Your task to perform on an android device: install app "Airtel Thanks" Image 0: 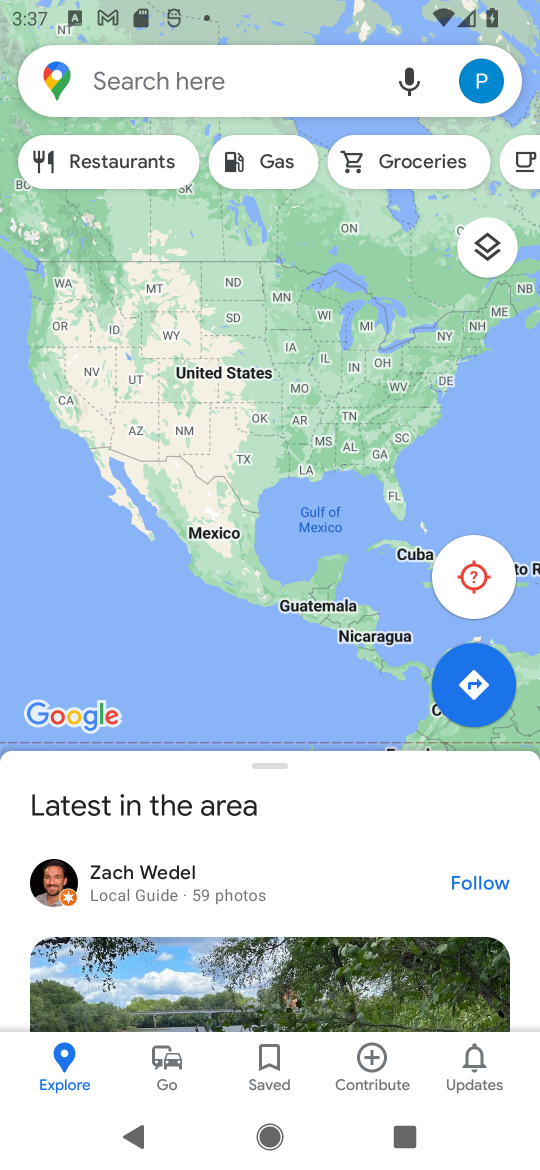
Step 0: press home button
Your task to perform on an android device: install app "Airtel Thanks" Image 1: 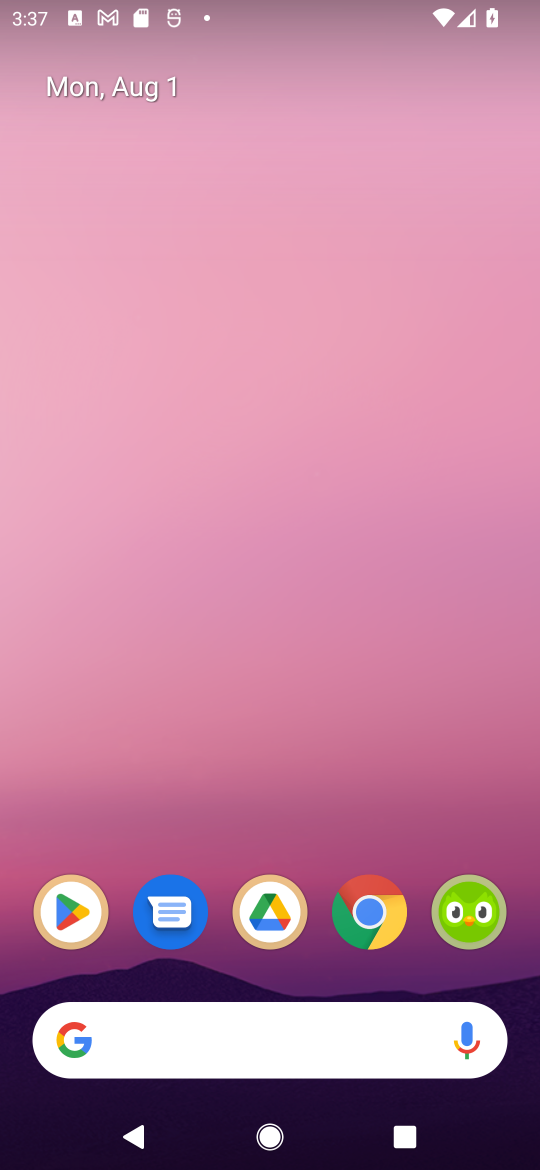
Step 1: click (66, 911)
Your task to perform on an android device: install app "Airtel Thanks" Image 2: 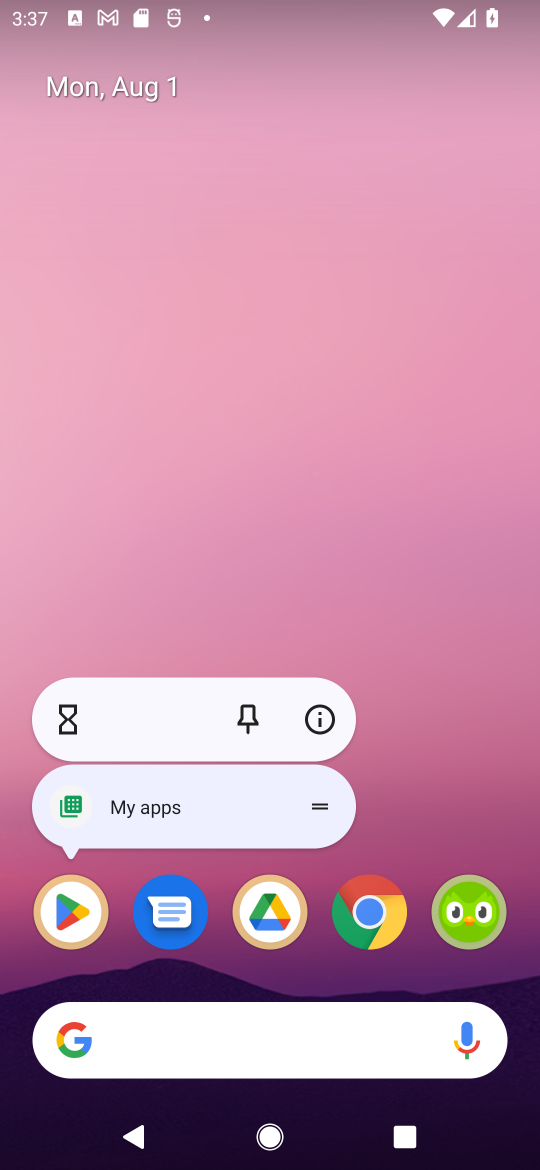
Step 2: click (72, 917)
Your task to perform on an android device: install app "Airtel Thanks" Image 3: 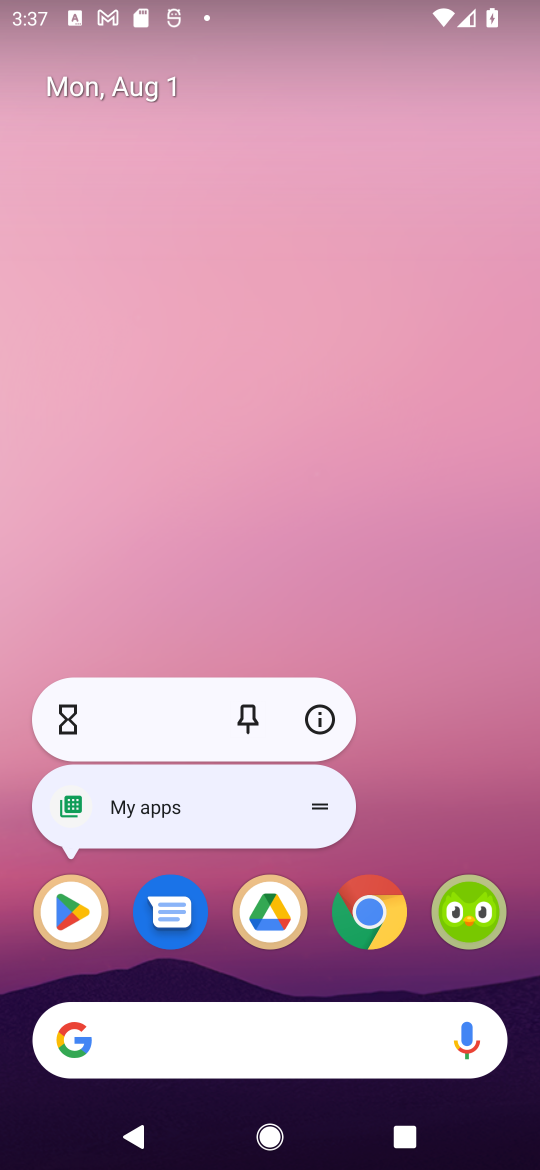
Step 3: click (72, 917)
Your task to perform on an android device: install app "Airtel Thanks" Image 4: 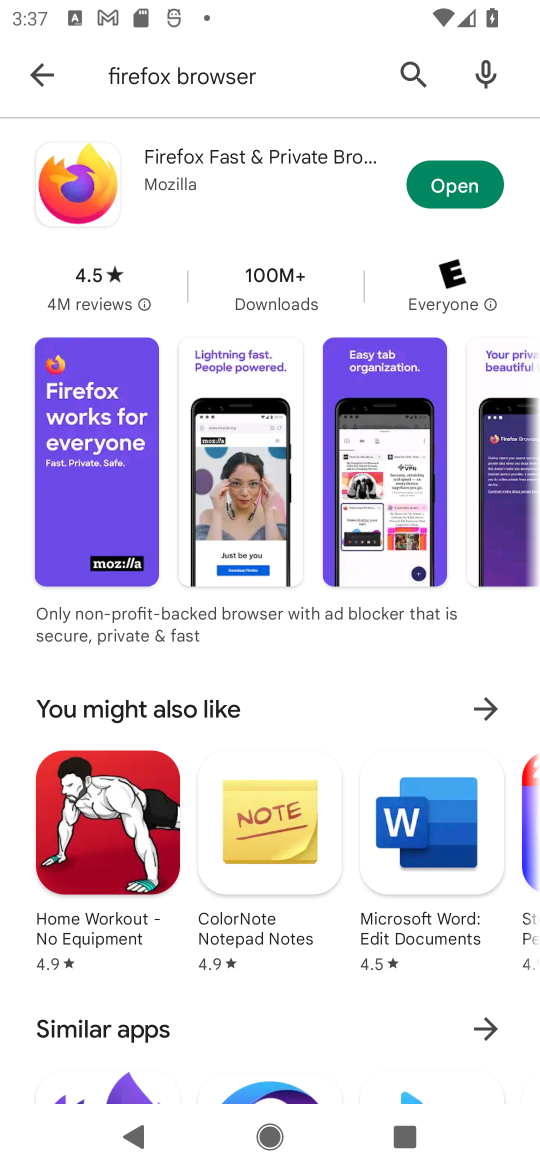
Step 4: click (423, 66)
Your task to perform on an android device: install app "Airtel Thanks" Image 5: 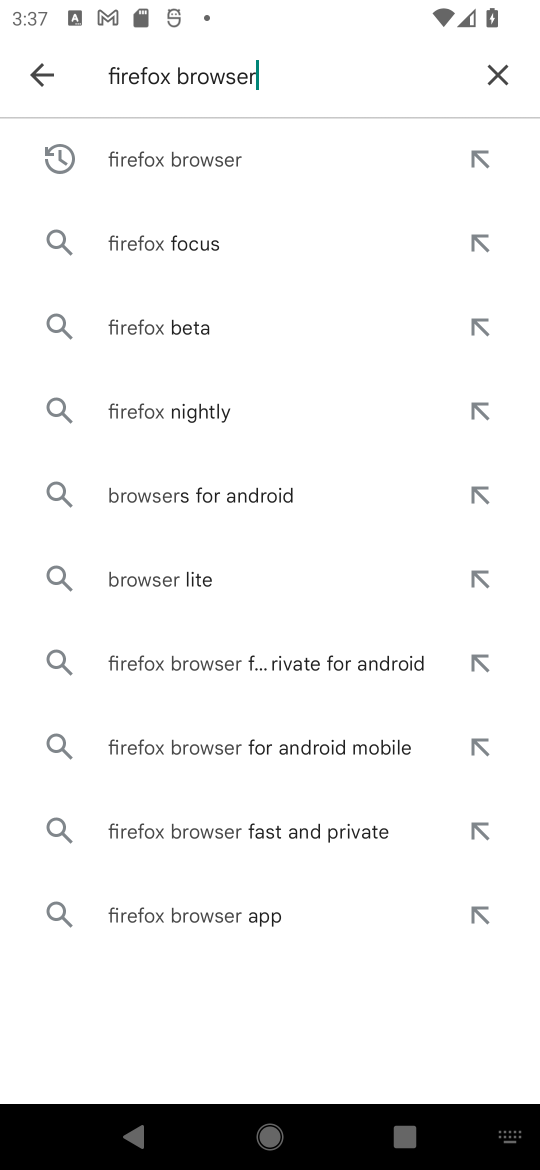
Step 5: click (501, 76)
Your task to perform on an android device: install app "Airtel Thanks" Image 6: 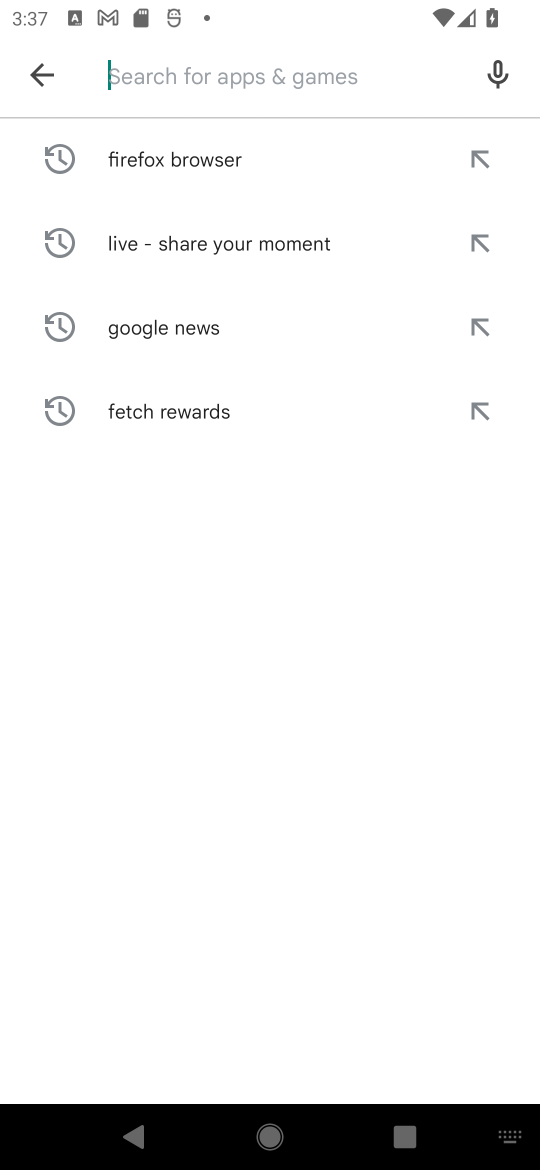
Step 6: click (142, 84)
Your task to perform on an android device: install app "Airtel Thanks" Image 7: 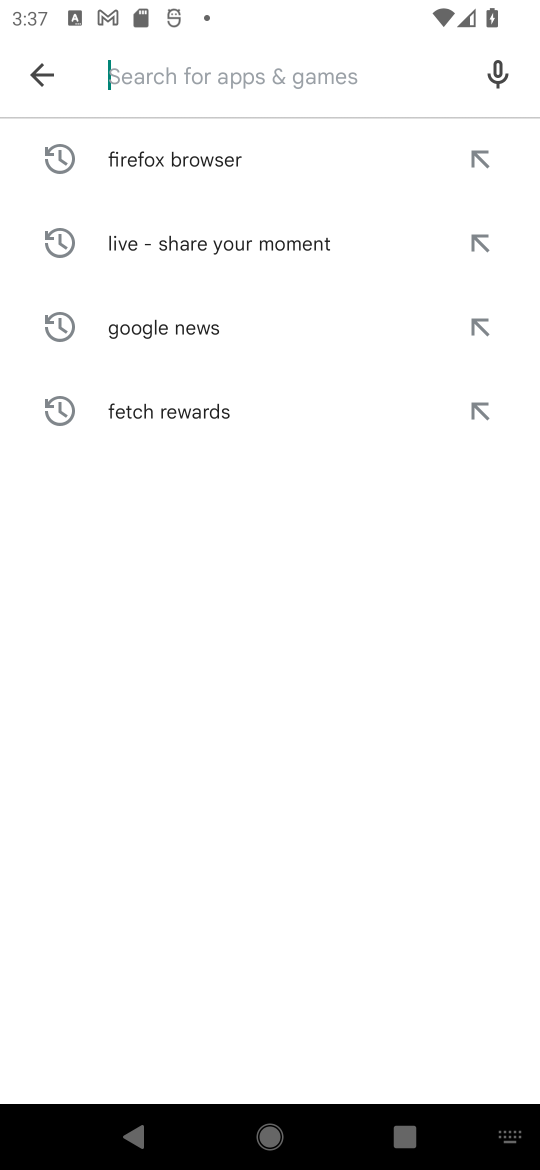
Step 7: type "Airtel Thanks"
Your task to perform on an android device: install app "Airtel Thanks" Image 8: 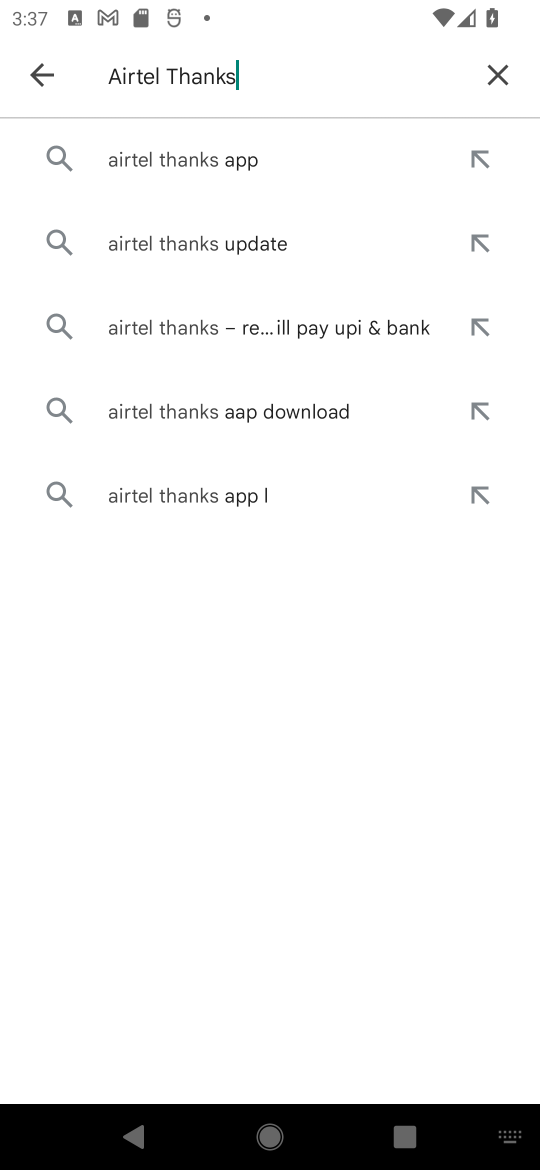
Step 8: click (231, 158)
Your task to perform on an android device: install app "Airtel Thanks" Image 9: 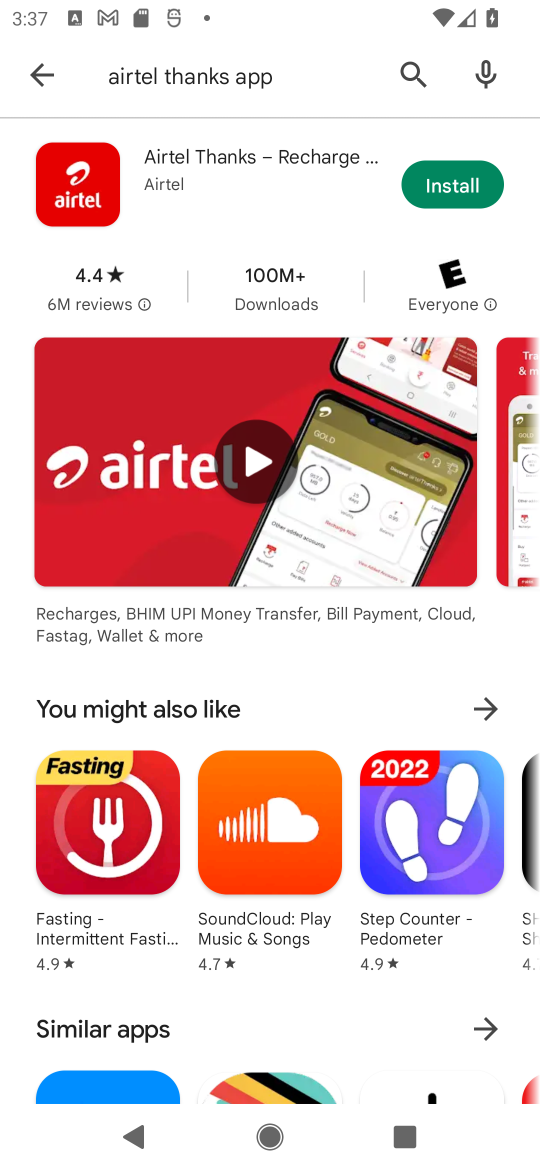
Step 9: click (438, 195)
Your task to perform on an android device: install app "Airtel Thanks" Image 10: 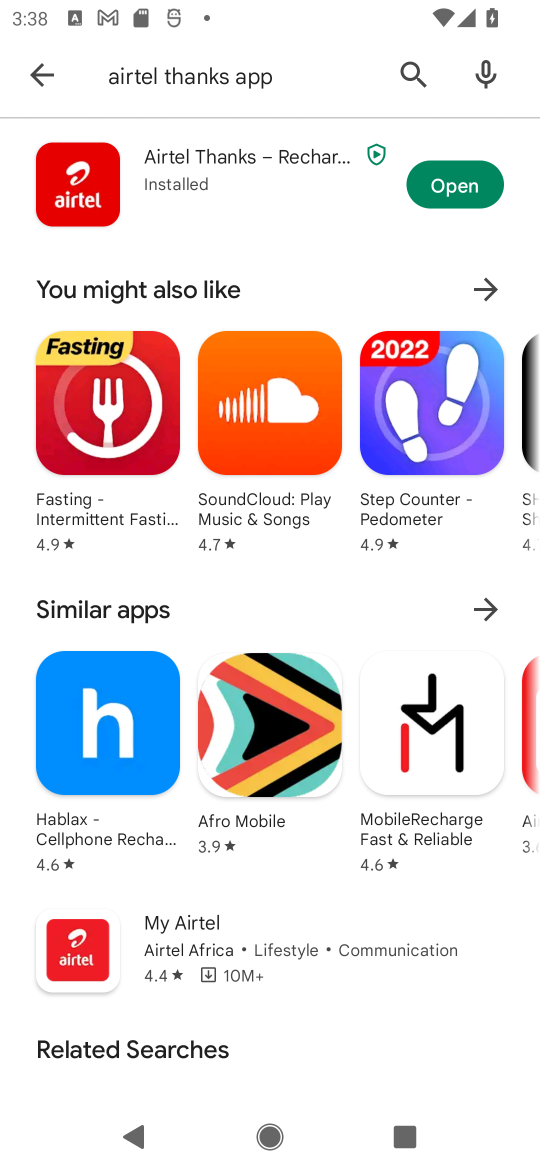
Step 10: task complete